Your task to perform on an android device: Open notification settings Image 0: 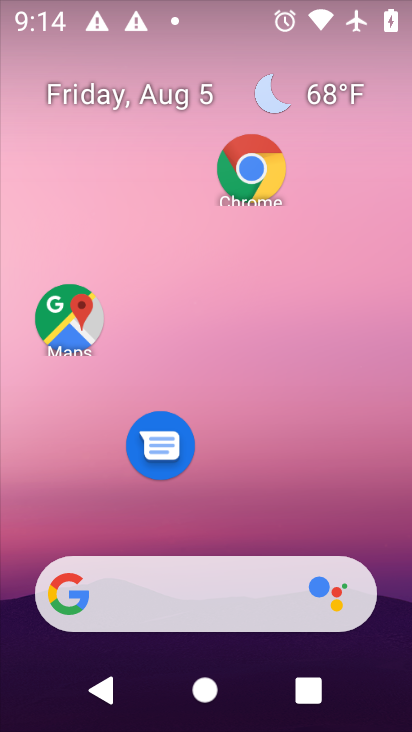
Step 0: drag from (206, 489) to (169, 101)
Your task to perform on an android device: Open notification settings Image 1: 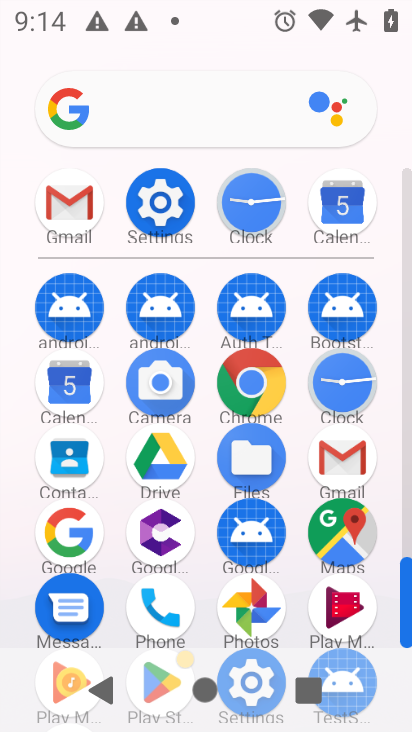
Step 1: click (166, 192)
Your task to perform on an android device: Open notification settings Image 2: 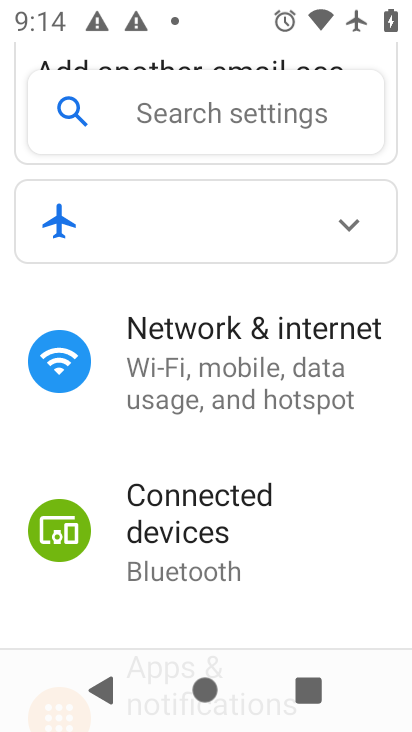
Step 2: drag from (209, 618) to (264, 389)
Your task to perform on an android device: Open notification settings Image 3: 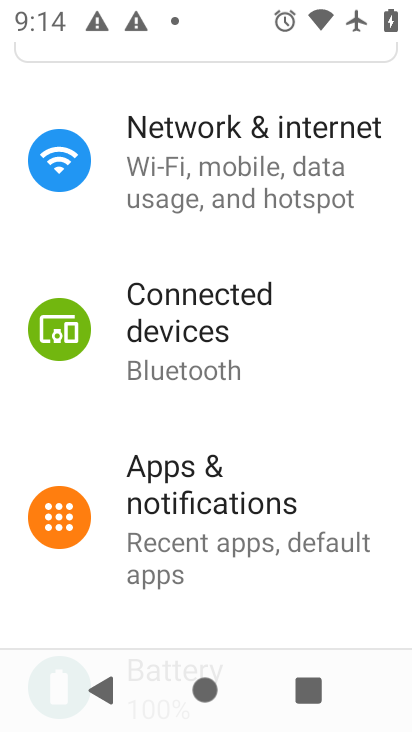
Step 3: click (236, 566)
Your task to perform on an android device: Open notification settings Image 4: 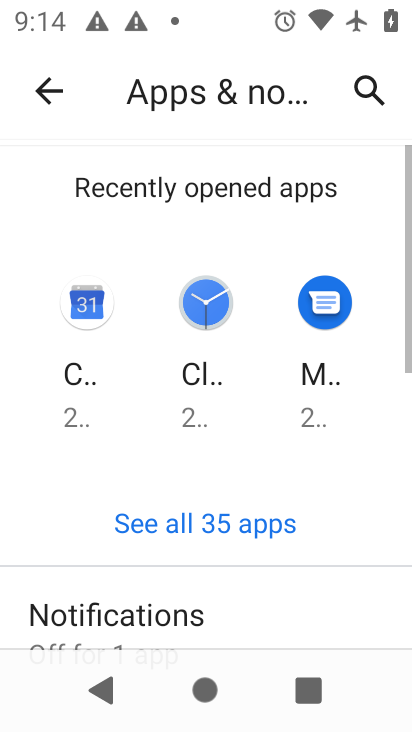
Step 4: click (212, 608)
Your task to perform on an android device: Open notification settings Image 5: 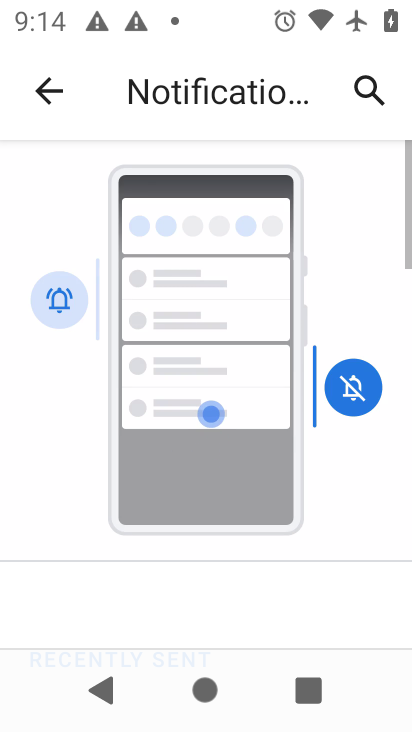
Step 5: task complete